Your task to perform on an android device: turn on notifications settings in the gmail app Image 0: 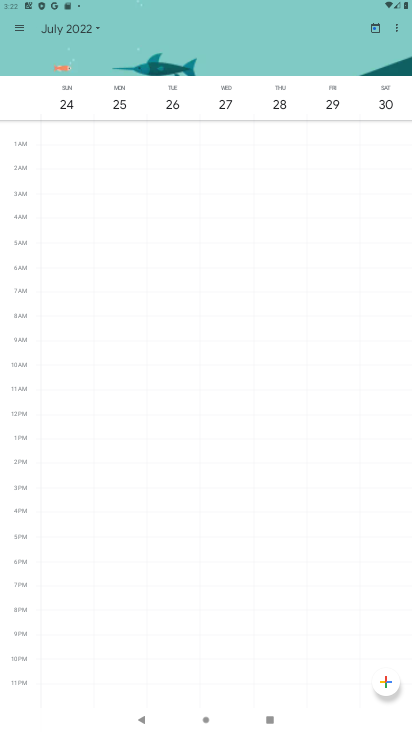
Step 0: press home button
Your task to perform on an android device: turn on notifications settings in the gmail app Image 1: 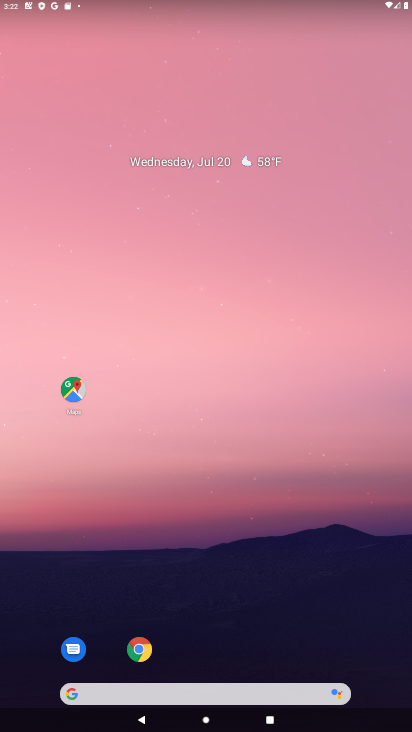
Step 1: drag from (233, 722) to (224, 456)
Your task to perform on an android device: turn on notifications settings in the gmail app Image 2: 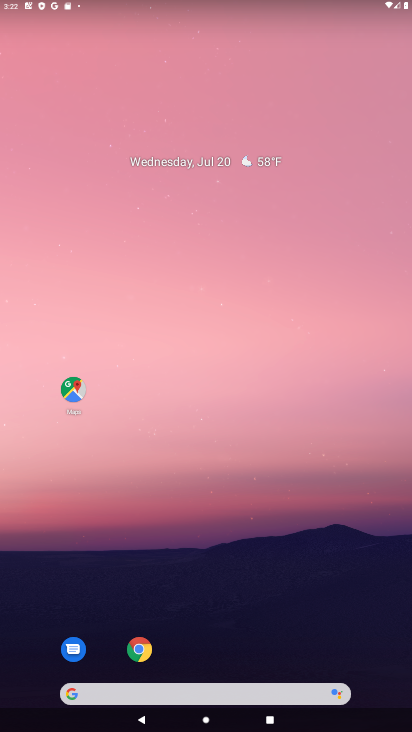
Step 2: drag from (235, 711) to (236, 320)
Your task to perform on an android device: turn on notifications settings in the gmail app Image 3: 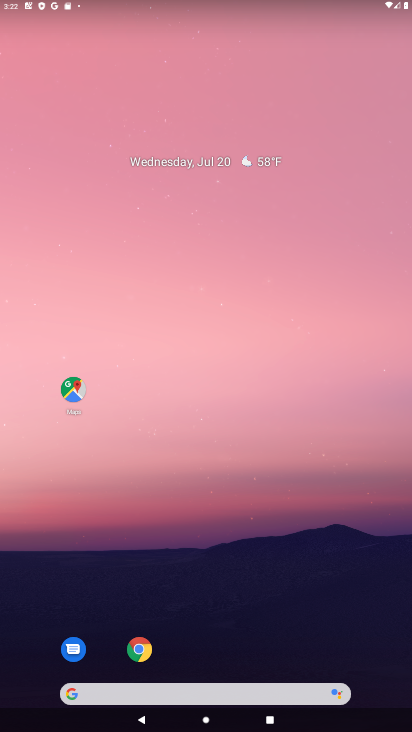
Step 3: drag from (238, 720) to (251, 213)
Your task to perform on an android device: turn on notifications settings in the gmail app Image 4: 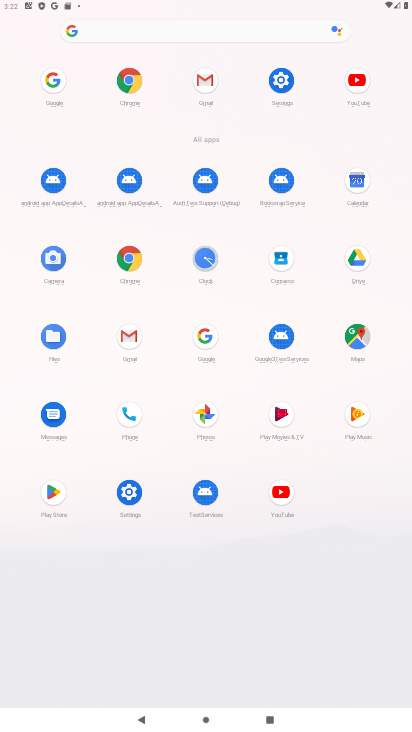
Step 4: click (135, 337)
Your task to perform on an android device: turn on notifications settings in the gmail app Image 5: 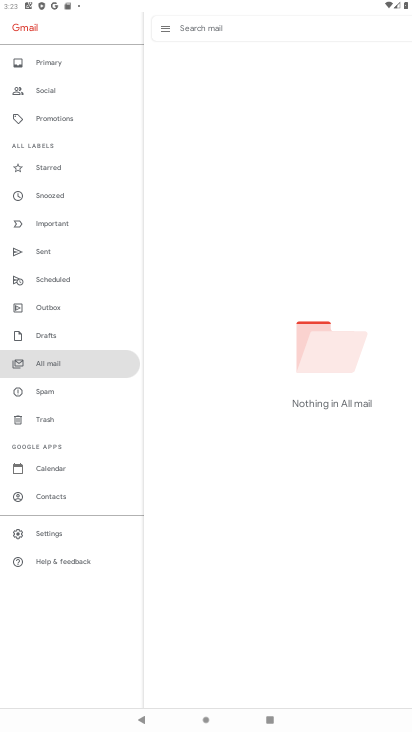
Step 5: click (44, 530)
Your task to perform on an android device: turn on notifications settings in the gmail app Image 6: 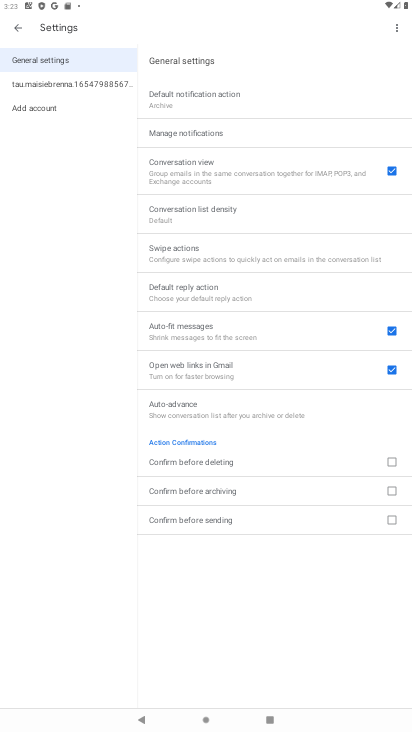
Step 6: click (82, 80)
Your task to perform on an android device: turn on notifications settings in the gmail app Image 7: 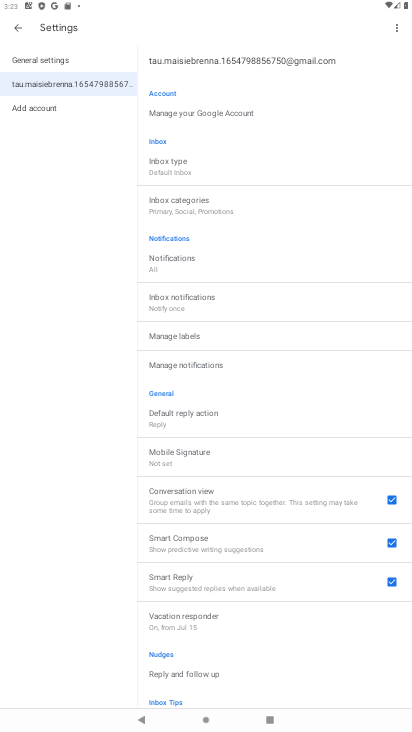
Step 7: task complete